Your task to perform on an android device: Open settings Image 0: 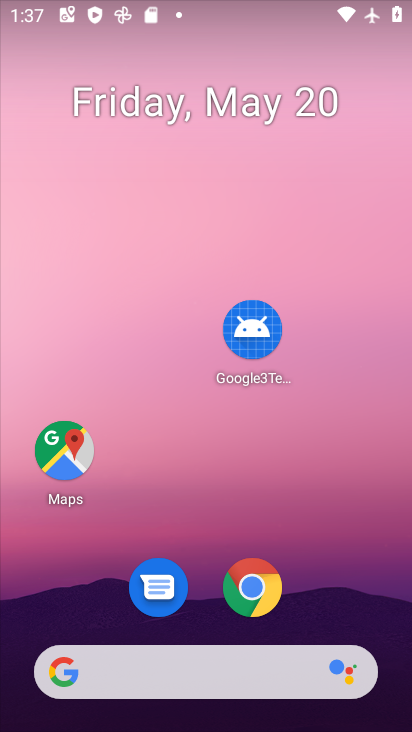
Step 0: drag from (321, 565) to (244, 77)
Your task to perform on an android device: Open settings Image 1: 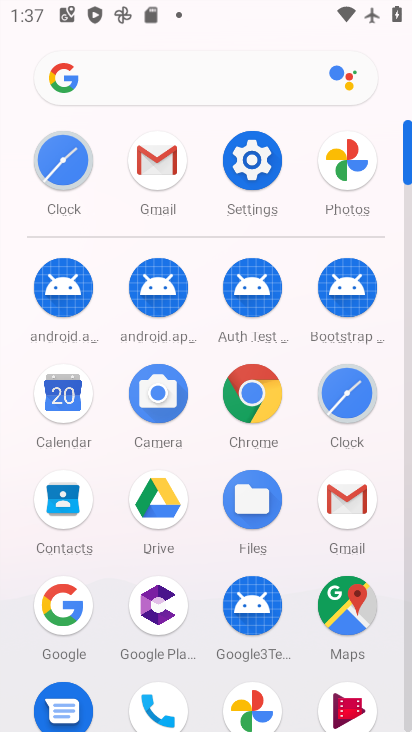
Step 1: click (250, 150)
Your task to perform on an android device: Open settings Image 2: 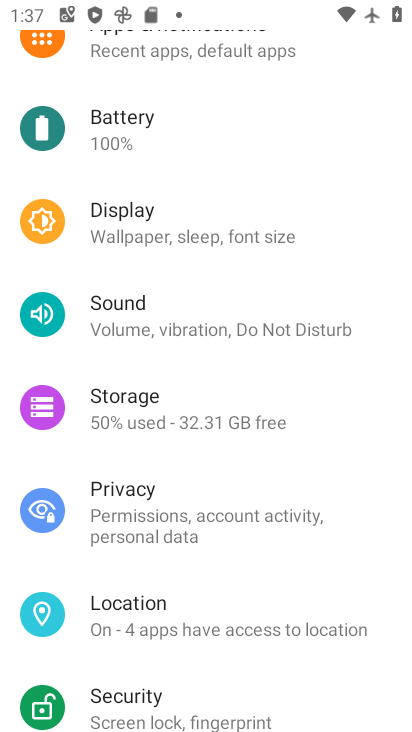
Step 2: task complete